Your task to perform on an android device: turn off notifications settings in the gmail app Image 0: 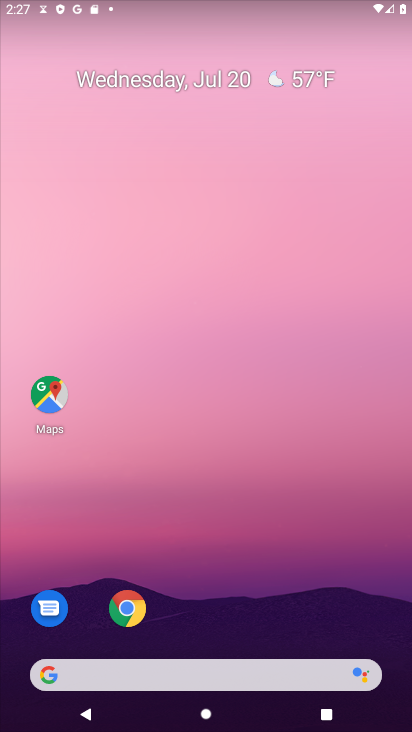
Step 0: drag from (192, 636) to (166, 264)
Your task to perform on an android device: turn off notifications settings in the gmail app Image 1: 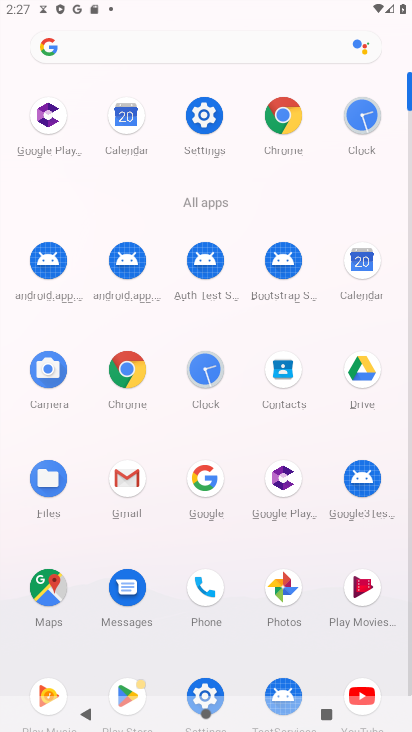
Step 1: click (119, 498)
Your task to perform on an android device: turn off notifications settings in the gmail app Image 2: 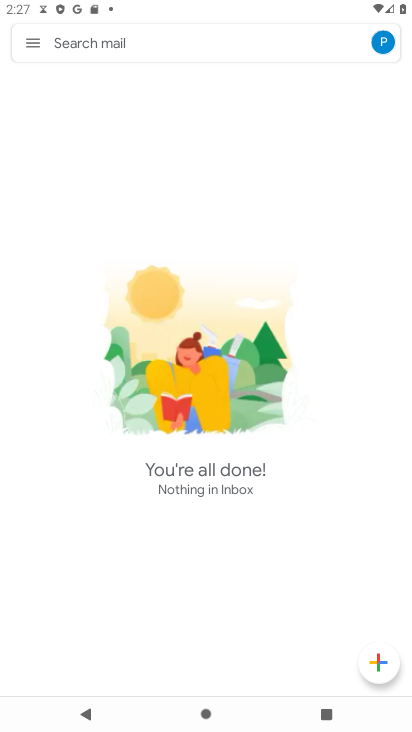
Step 2: click (40, 36)
Your task to perform on an android device: turn off notifications settings in the gmail app Image 3: 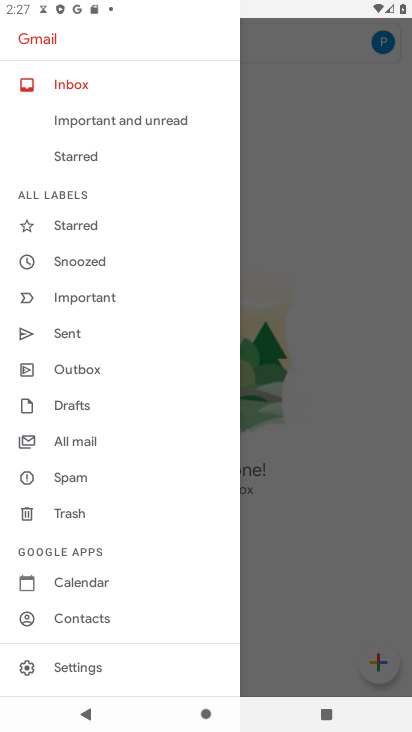
Step 3: click (59, 664)
Your task to perform on an android device: turn off notifications settings in the gmail app Image 4: 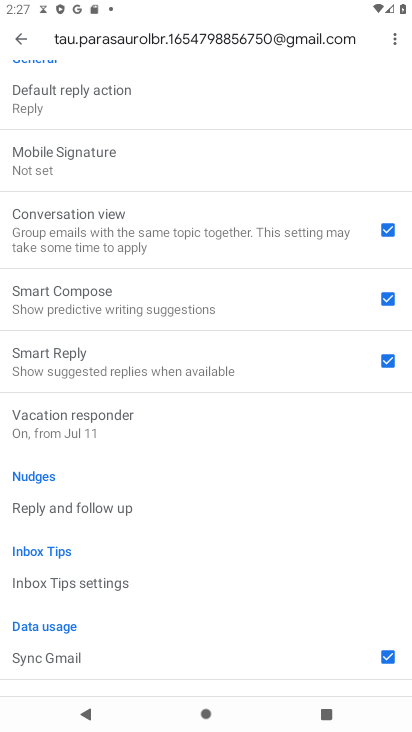
Step 4: drag from (295, 183) to (221, 712)
Your task to perform on an android device: turn off notifications settings in the gmail app Image 5: 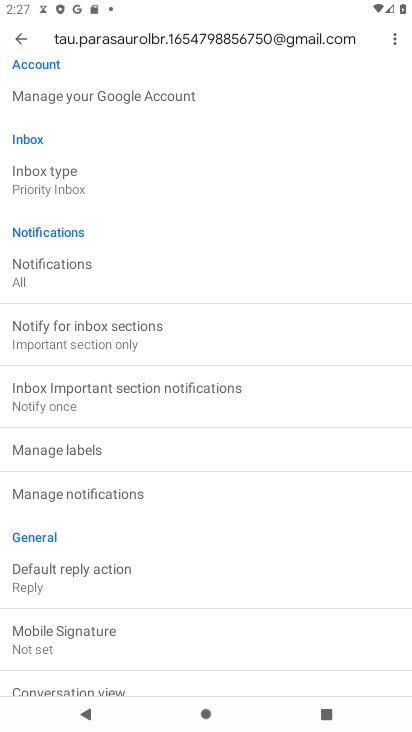
Step 5: click (45, 492)
Your task to perform on an android device: turn off notifications settings in the gmail app Image 6: 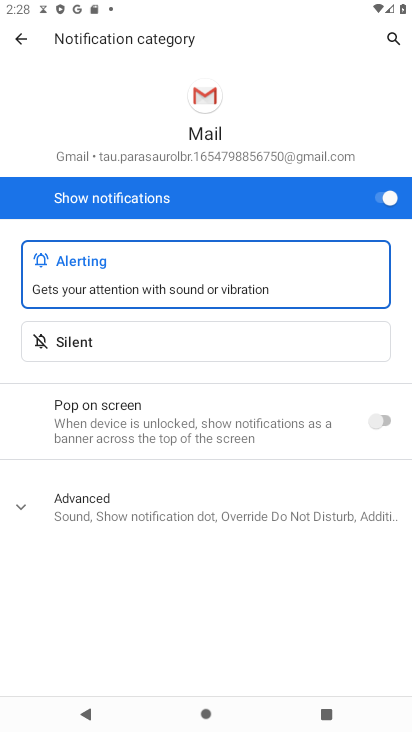
Step 6: click (386, 201)
Your task to perform on an android device: turn off notifications settings in the gmail app Image 7: 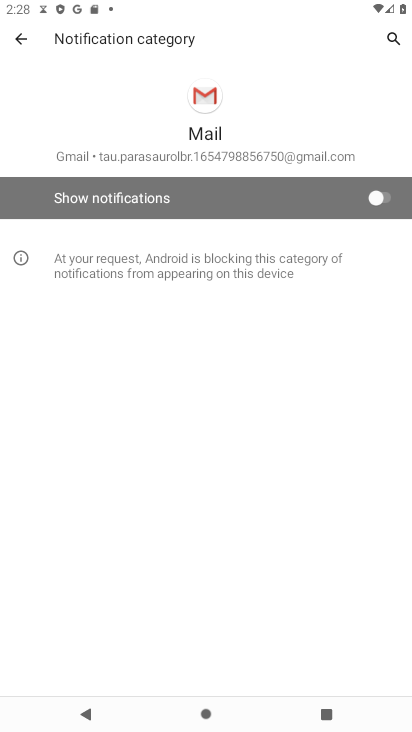
Step 7: task complete